Your task to perform on an android device: Open settings on Google Maps Image 0: 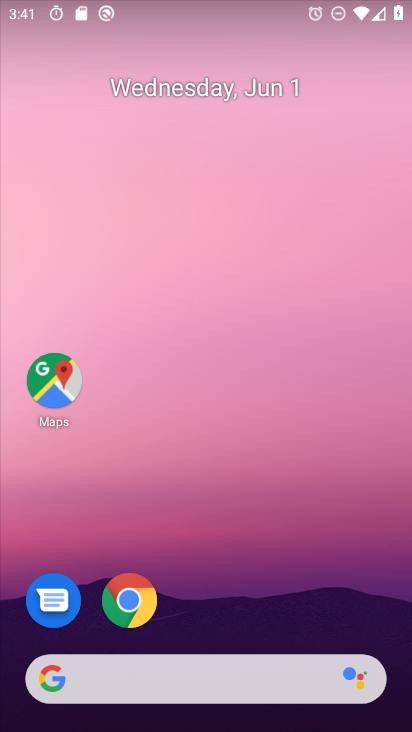
Step 0: drag from (204, 613) to (181, 280)
Your task to perform on an android device: Open settings on Google Maps Image 1: 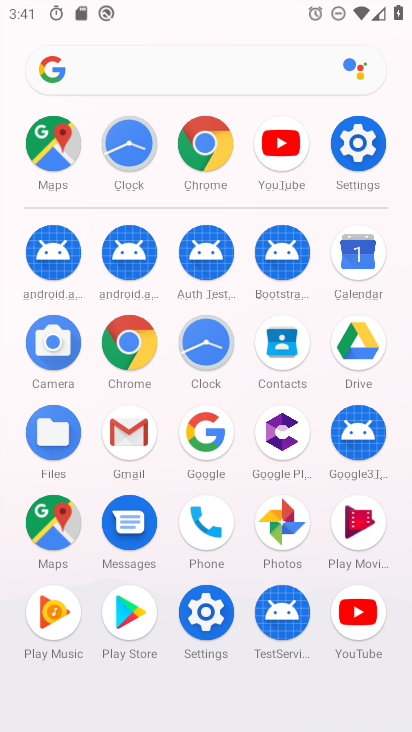
Step 1: click (56, 152)
Your task to perform on an android device: Open settings on Google Maps Image 2: 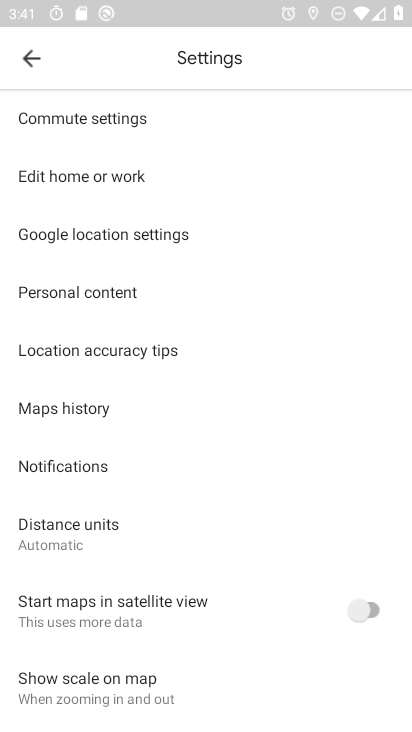
Step 2: click (28, 59)
Your task to perform on an android device: Open settings on Google Maps Image 3: 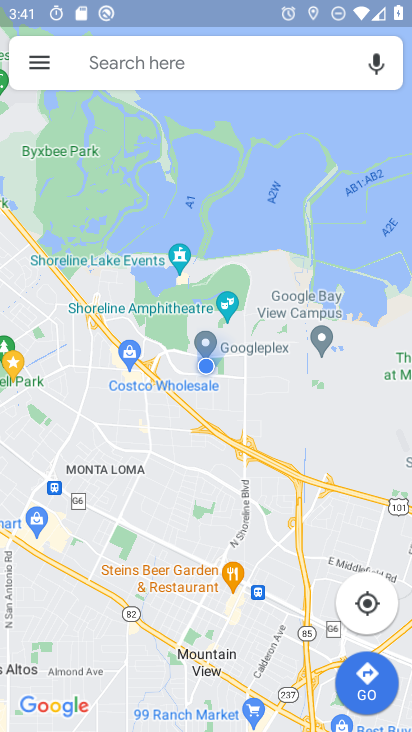
Step 3: click (36, 67)
Your task to perform on an android device: Open settings on Google Maps Image 4: 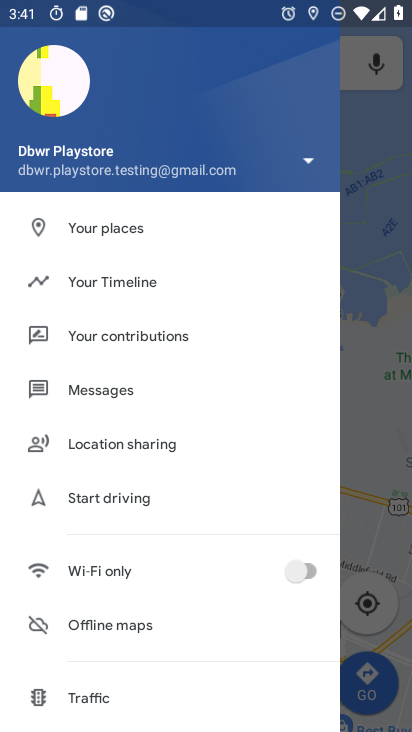
Step 4: drag from (140, 680) to (156, 516)
Your task to perform on an android device: Open settings on Google Maps Image 5: 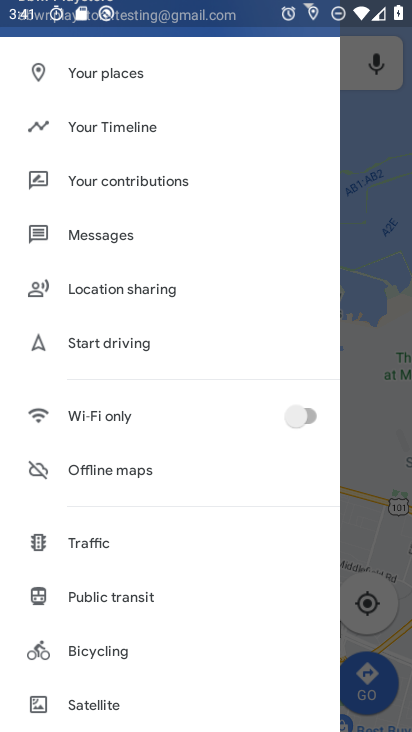
Step 5: drag from (148, 682) to (157, 471)
Your task to perform on an android device: Open settings on Google Maps Image 6: 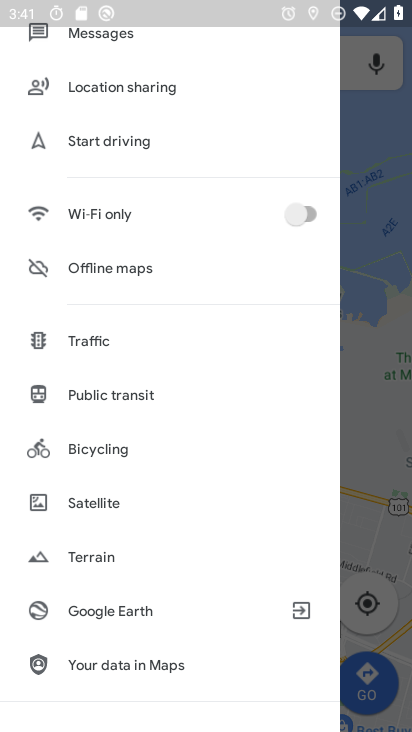
Step 6: drag from (161, 697) to (192, 435)
Your task to perform on an android device: Open settings on Google Maps Image 7: 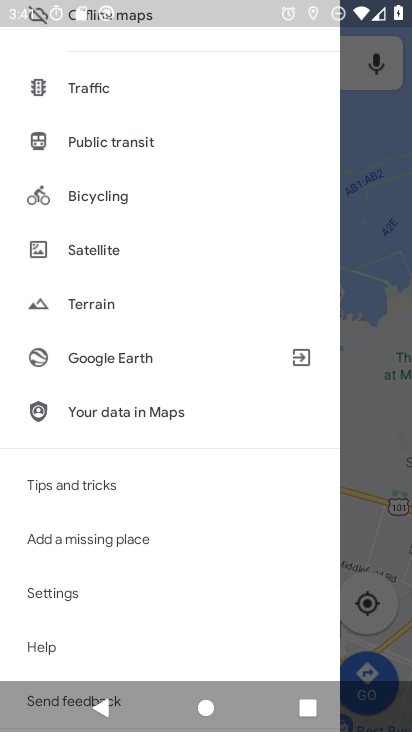
Step 7: click (62, 598)
Your task to perform on an android device: Open settings on Google Maps Image 8: 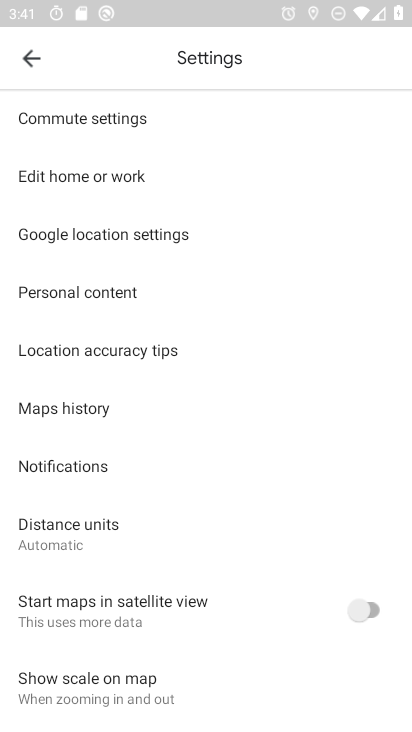
Step 8: task complete